Your task to perform on an android device: Search for pizza restaurants on Maps Image 0: 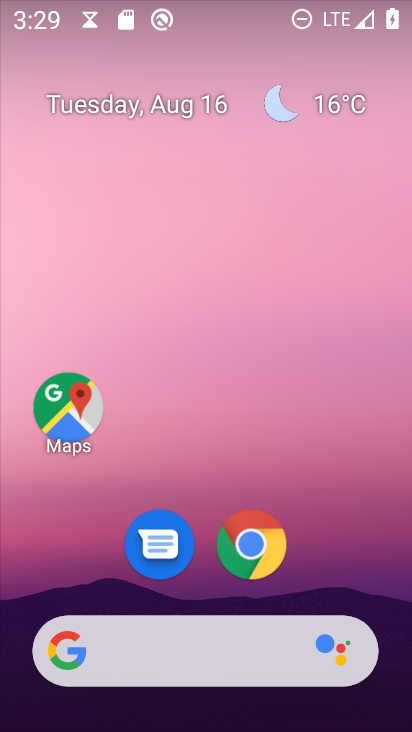
Step 0: click (70, 412)
Your task to perform on an android device: Search for pizza restaurants on Maps Image 1: 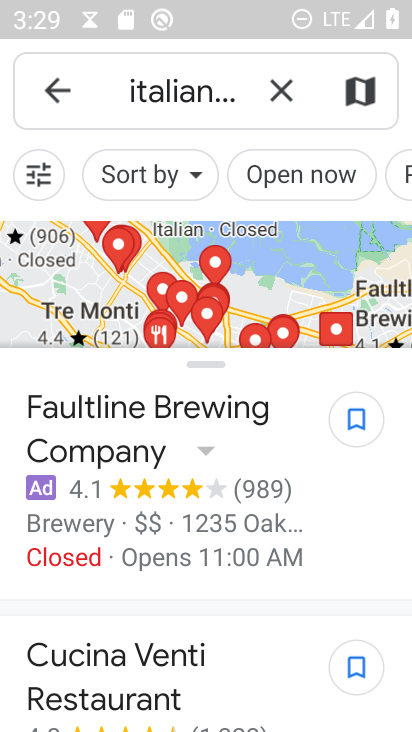
Step 1: click (279, 91)
Your task to perform on an android device: Search for pizza restaurants on Maps Image 2: 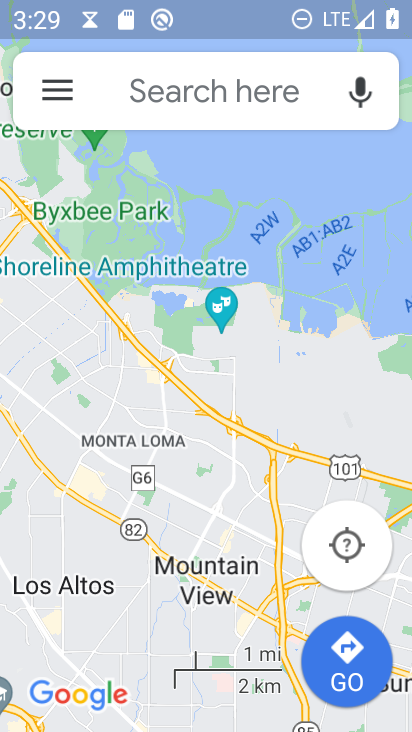
Step 2: click (249, 98)
Your task to perform on an android device: Search for pizza restaurants on Maps Image 3: 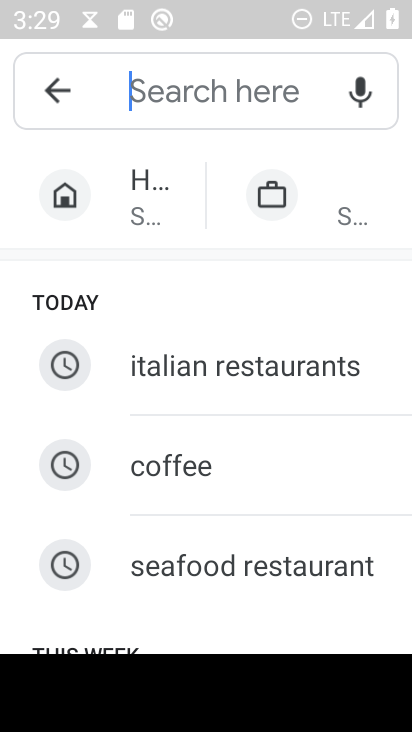
Step 3: type "pizza restaurants"
Your task to perform on an android device: Search for pizza restaurants on Maps Image 4: 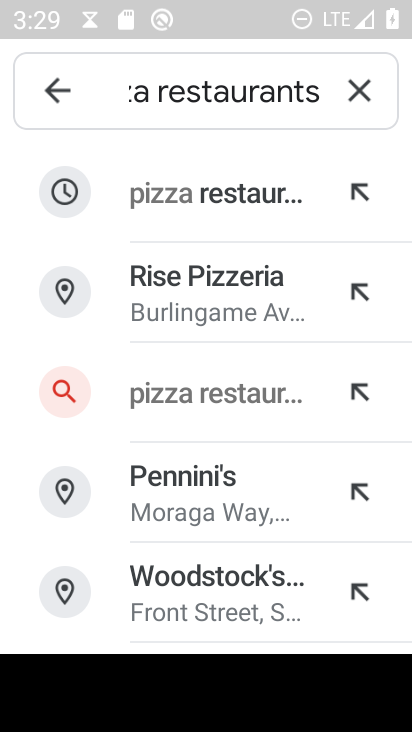
Step 4: click (216, 188)
Your task to perform on an android device: Search for pizza restaurants on Maps Image 5: 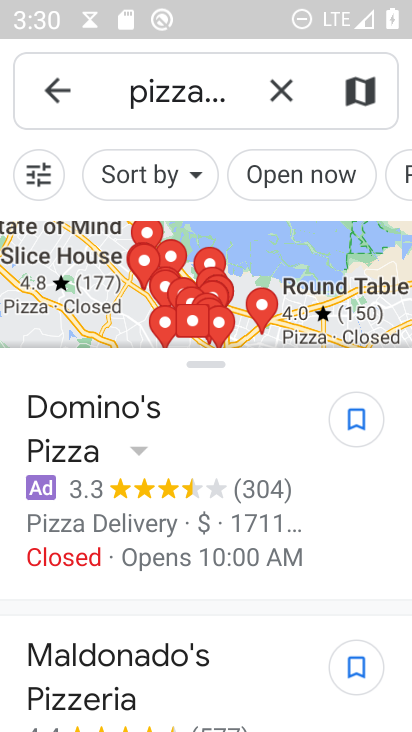
Step 5: task complete